Your task to perform on an android device: make emails show in primary in the gmail app Image 0: 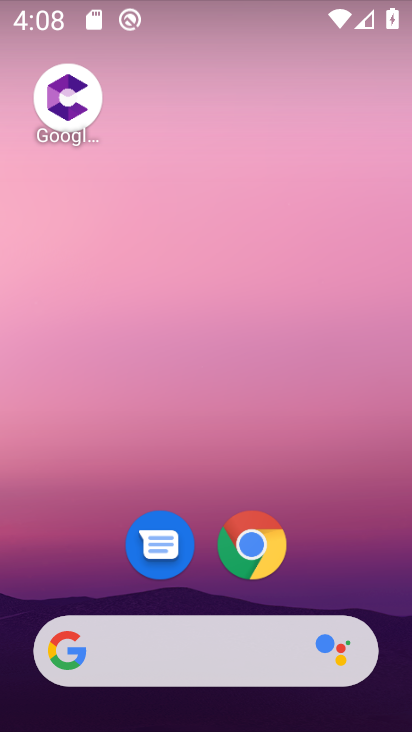
Step 0: drag from (375, 578) to (372, 318)
Your task to perform on an android device: make emails show in primary in the gmail app Image 1: 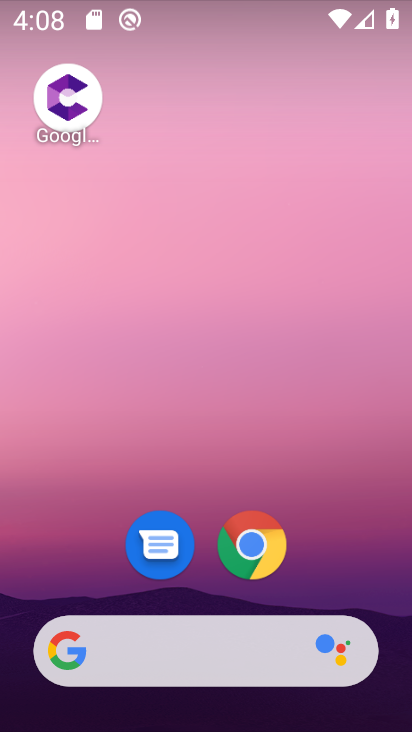
Step 1: drag from (389, 594) to (388, 222)
Your task to perform on an android device: make emails show in primary in the gmail app Image 2: 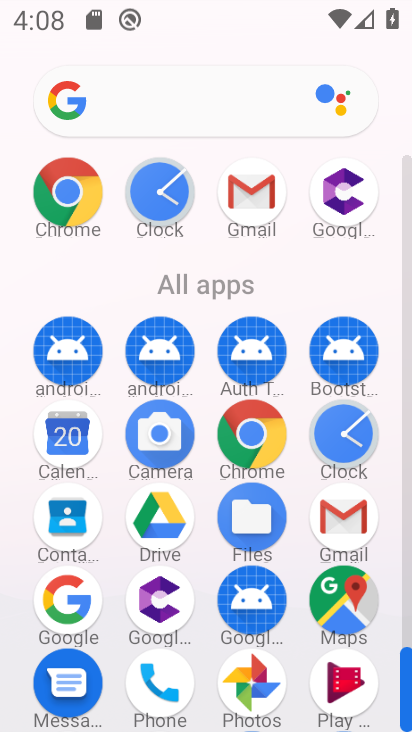
Step 2: click (358, 528)
Your task to perform on an android device: make emails show in primary in the gmail app Image 3: 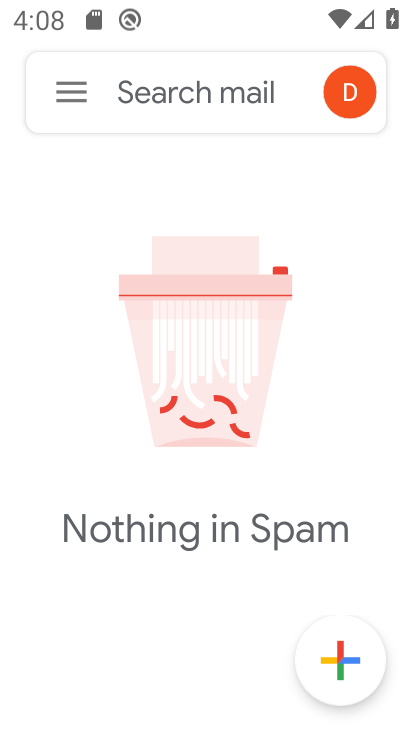
Step 3: click (76, 97)
Your task to perform on an android device: make emails show in primary in the gmail app Image 4: 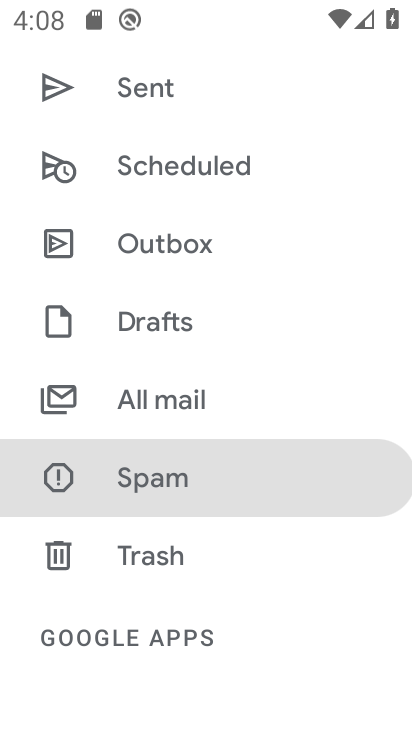
Step 4: drag from (274, 392) to (284, 286)
Your task to perform on an android device: make emails show in primary in the gmail app Image 5: 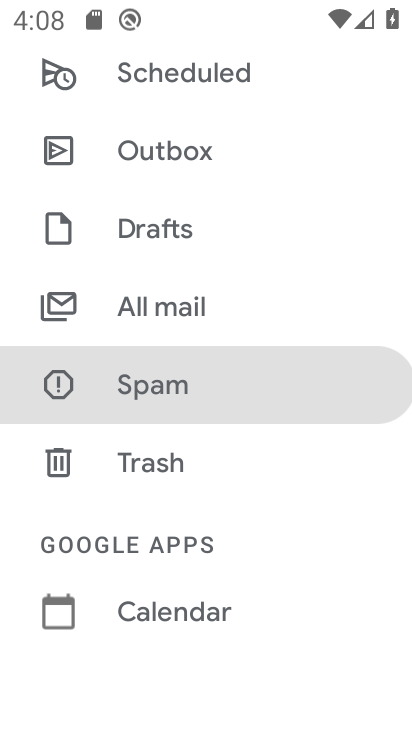
Step 5: drag from (297, 427) to (302, 371)
Your task to perform on an android device: make emails show in primary in the gmail app Image 6: 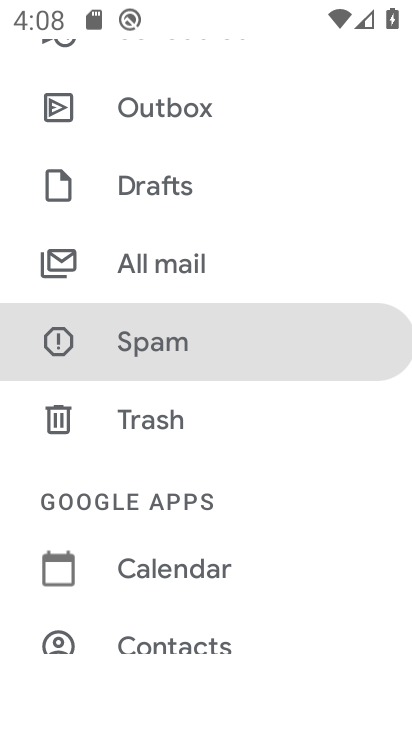
Step 6: drag from (306, 449) to (6, 391)
Your task to perform on an android device: make emails show in primary in the gmail app Image 7: 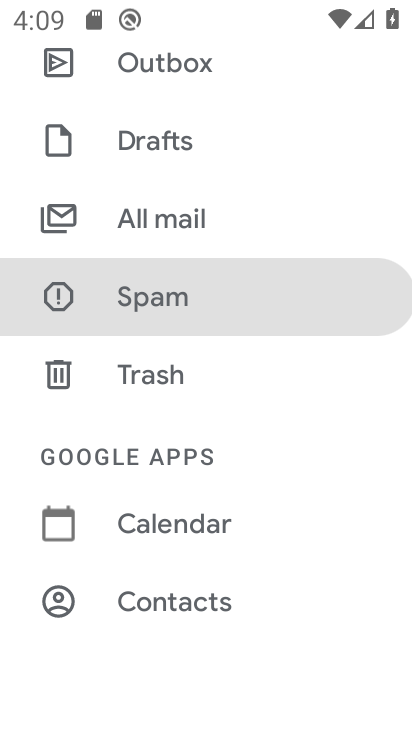
Step 7: drag from (342, 554) to (319, 350)
Your task to perform on an android device: make emails show in primary in the gmail app Image 8: 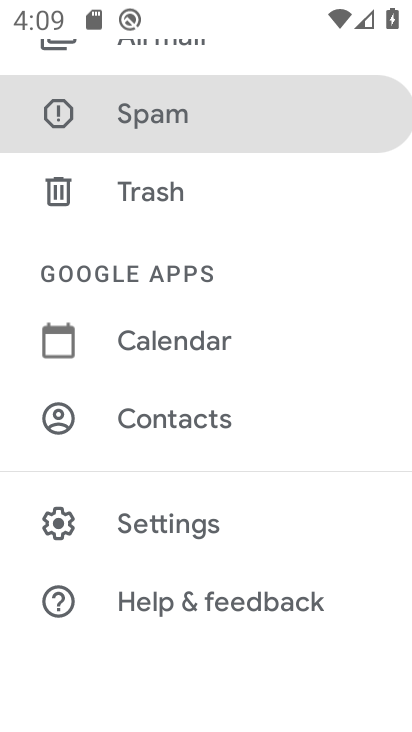
Step 8: click (223, 589)
Your task to perform on an android device: make emails show in primary in the gmail app Image 9: 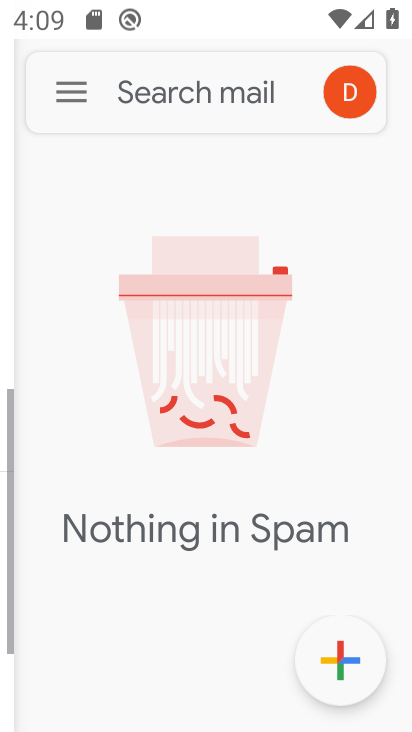
Step 9: click (214, 551)
Your task to perform on an android device: make emails show in primary in the gmail app Image 10: 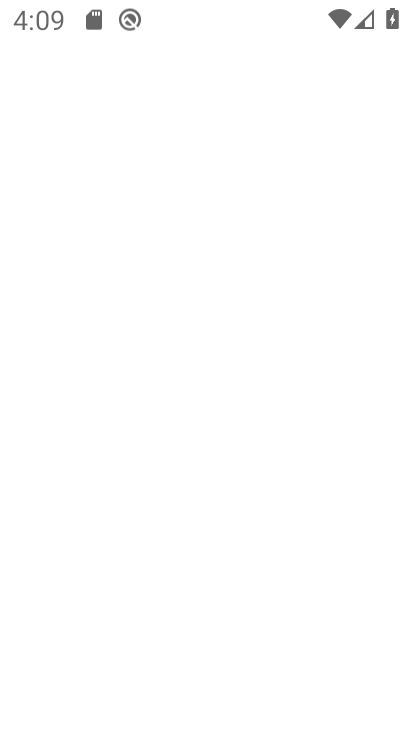
Step 10: click (71, 101)
Your task to perform on an android device: make emails show in primary in the gmail app Image 11: 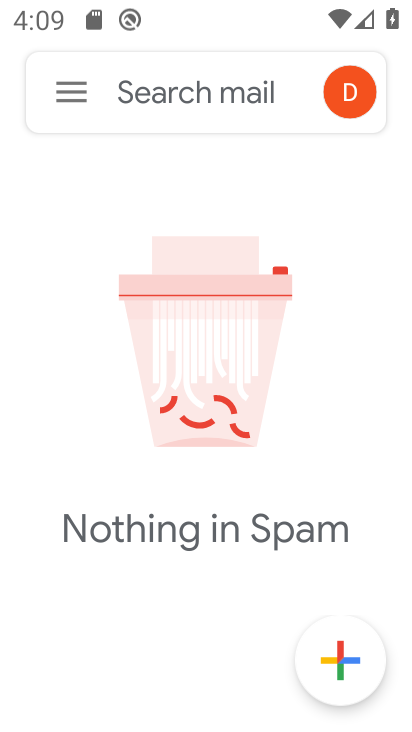
Step 11: click (77, 99)
Your task to perform on an android device: make emails show in primary in the gmail app Image 12: 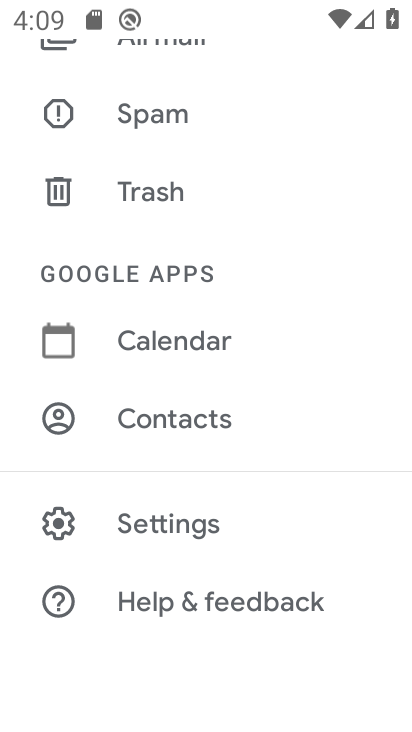
Step 12: click (208, 515)
Your task to perform on an android device: make emails show in primary in the gmail app Image 13: 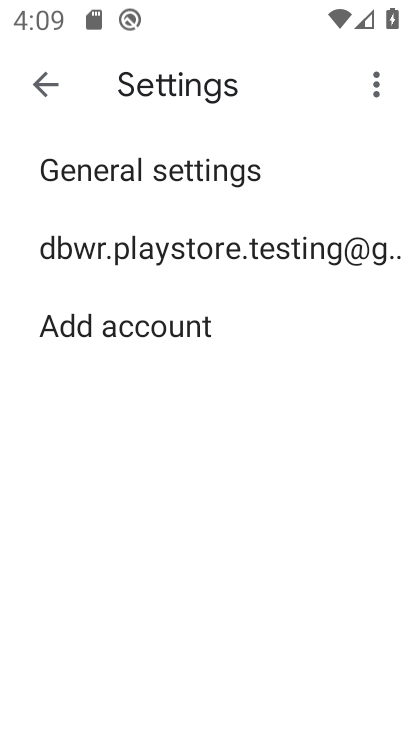
Step 13: click (163, 265)
Your task to perform on an android device: make emails show in primary in the gmail app Image 14: 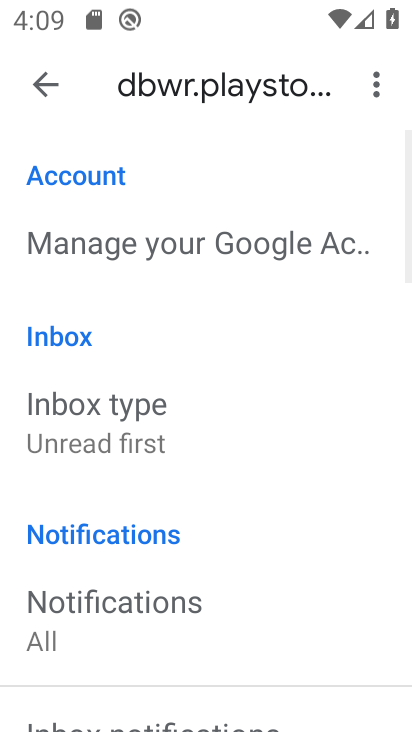
Step 14: click (145, 420)
Your task to perform on an android device: make emails show in primary in the gmail app Image 15: 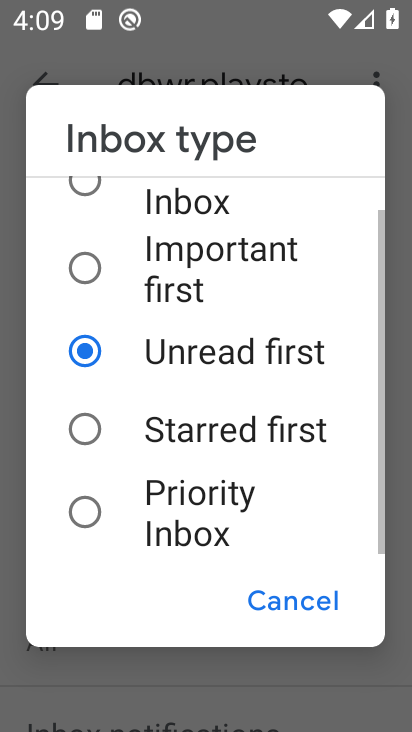
Step 15: drag from (120, 207) to (118, 367)
Your task to perform on an android device: make emails show in primary in the gmail app Image 16: 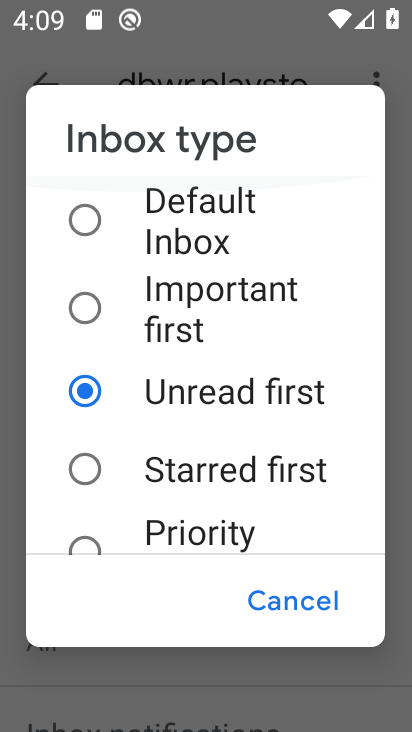
Step 16: click (143, 257)
Your task to perform on an android device: make emails show in primary in the gmail app Image 17: 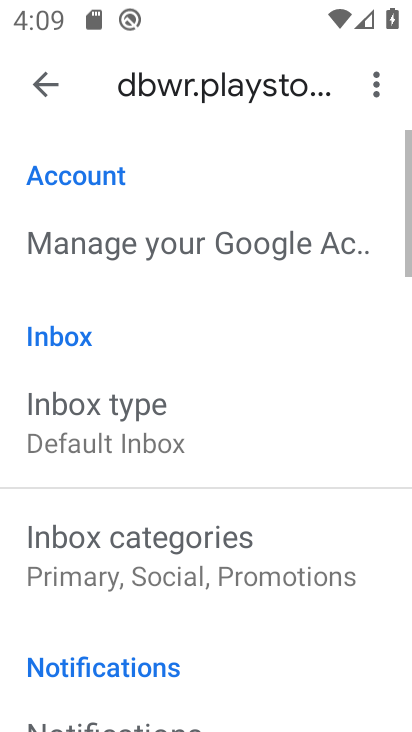
Step 17: drag from (202, 432) to (204, 247)
Your task to perform on an android device: make emails show in primary in the gmail app Image 18: 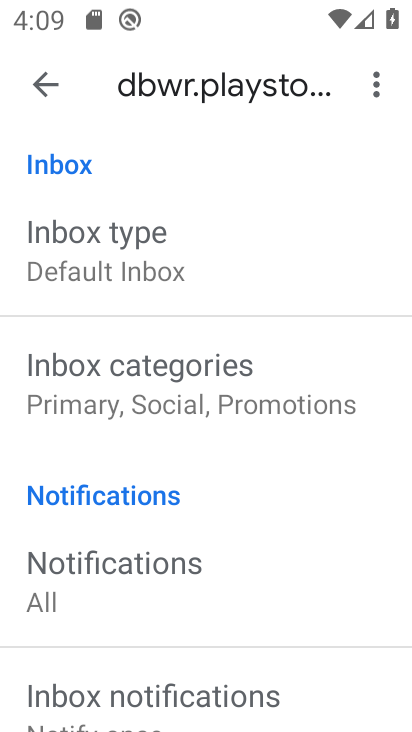
Step 18: click (211, 360)
Your task to perform on an android device: make emails show in primary in the gmail app Image 19: 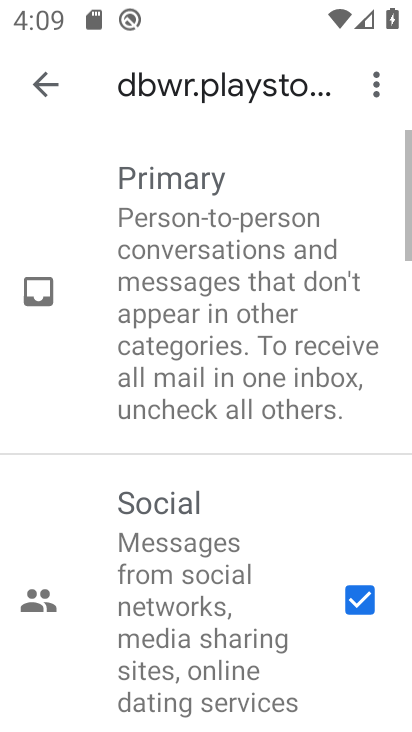
Step 19: drag from (285, 529) to (276, 210)
Your task to perform on an android device: make emails show in primary in the gmail app Image 20: 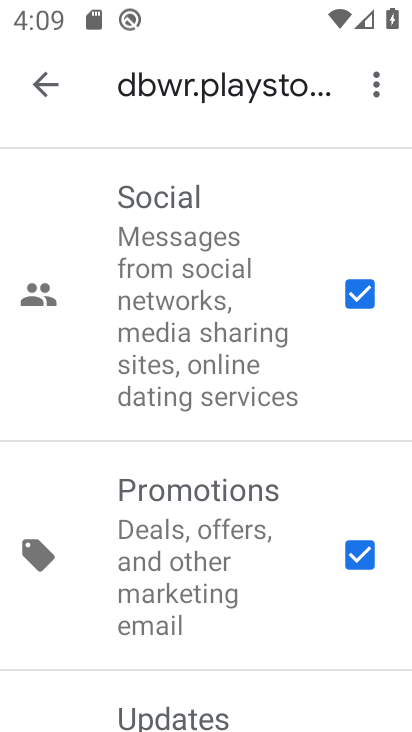
Step 20: click (343, 295)
Your task to perform on an android device: make emails show in primary in the gmail app Image 21: 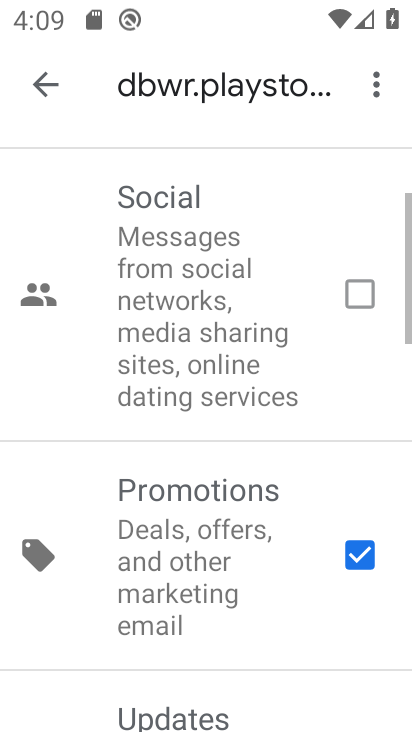
Step 21: click (357, 571)
Your task to perform on an android device: make emails show in primary in the gmail app Image 22: 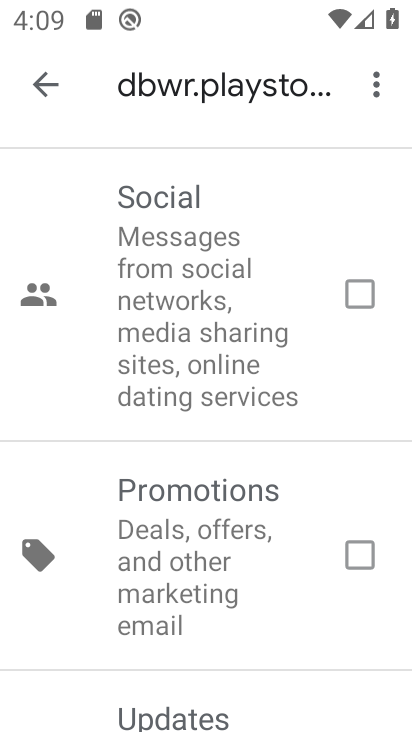
Step 22: task complete